Your task to perform on an android device: install app "TextNow: Call + Text Unlimited" Image 0: 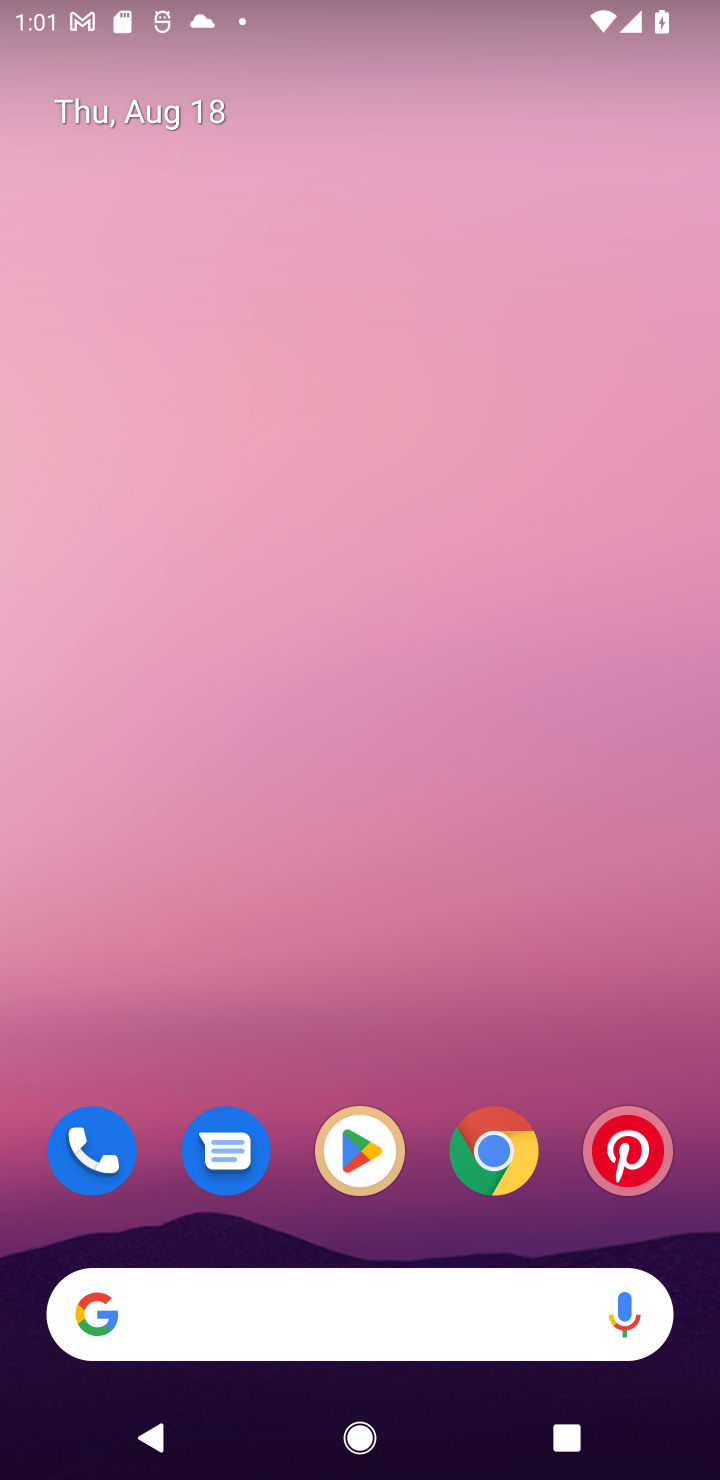
Step 0: click (351, 1147)
Your task to perform on an android device: install app "TextNow: Call + Text Unlimited" Image 1: 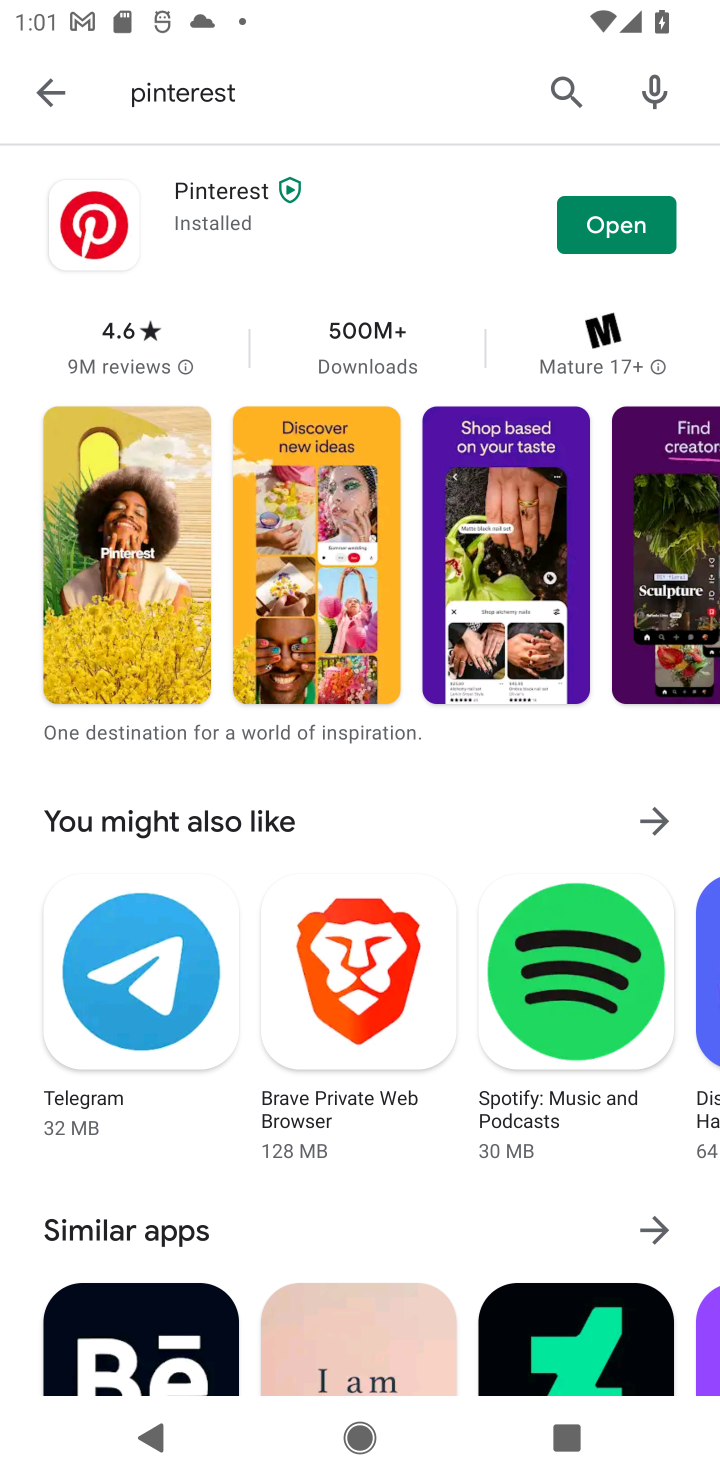
Step 1: click (48, 89)
Your task to perform on an android device: install app "TextNow: Call + Text Unlimited" Image 2: 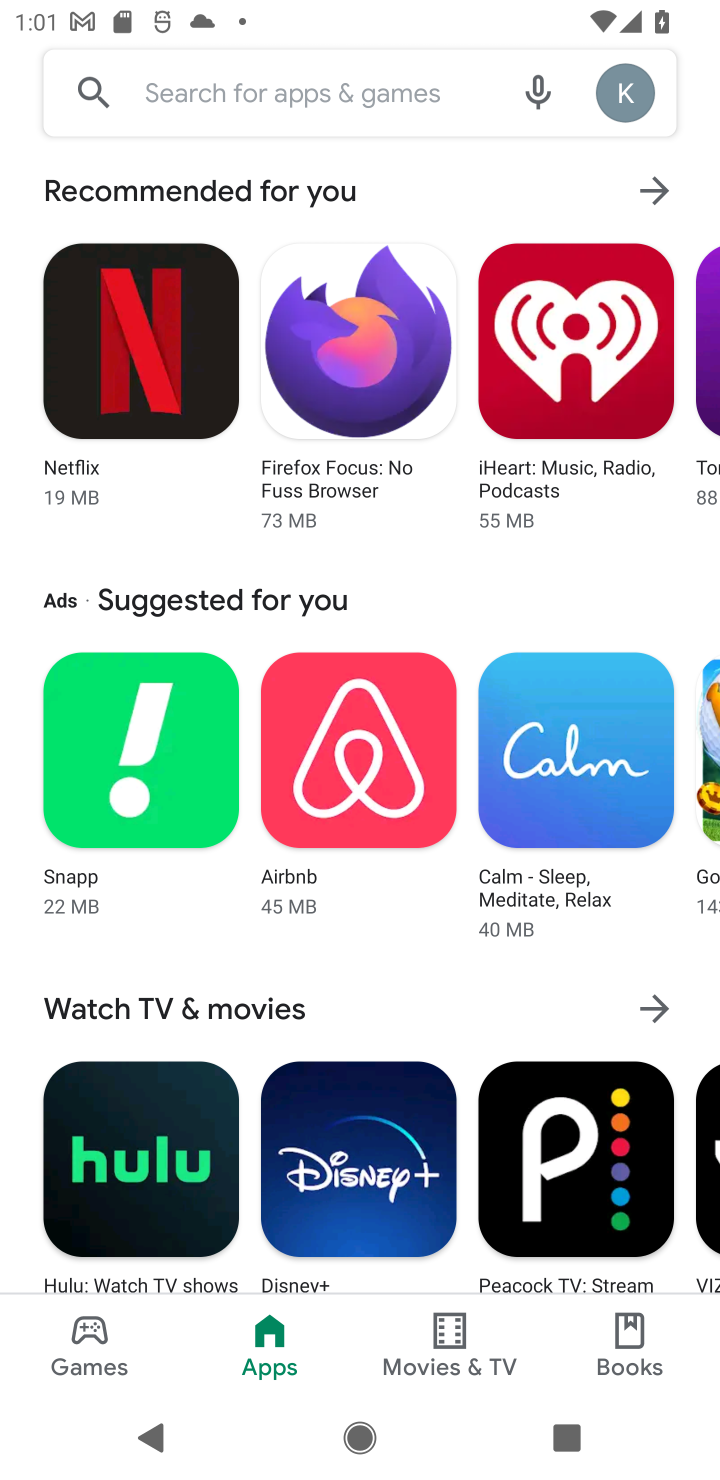
Step 2: click (240, 81)
Your task to perform on an android device: install app "TextNow: Call + Text Unlimited" Image 3: 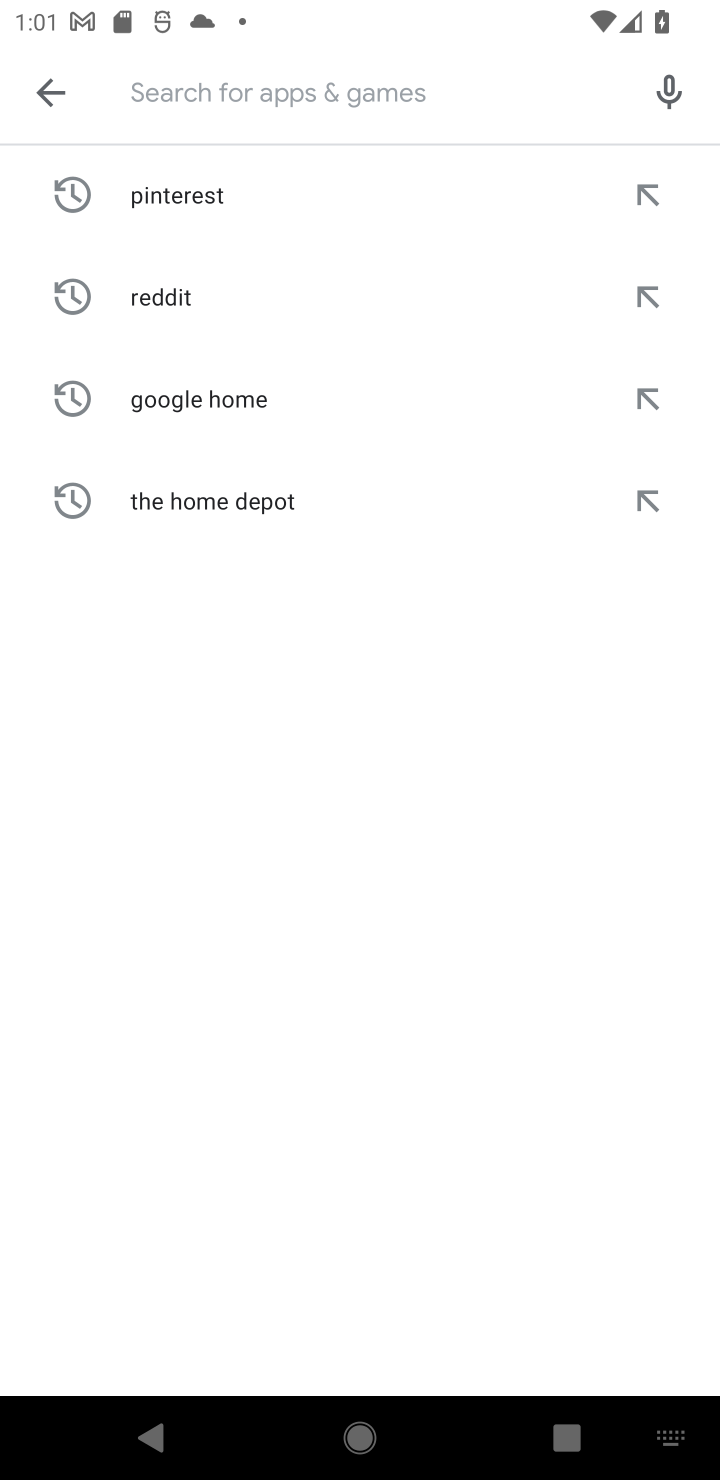
Step 3: type "TextNow: Call + Text Unlimited"
Your task to perform on an android device: install app "TextNow: Call + Text Unlimited" Image 4: 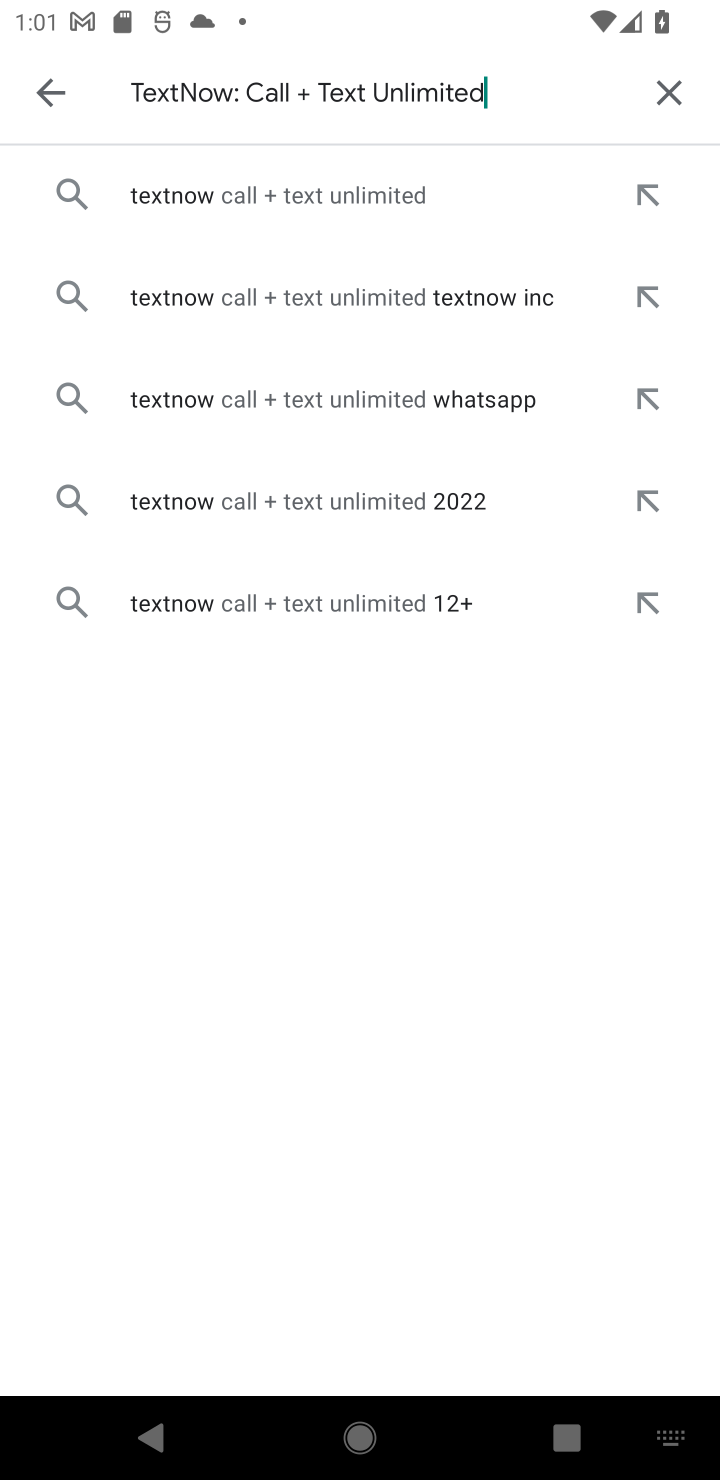
Step 4: click (205, 194)
Your task to perform on an android device: install app "TextNow: Call + Text Unlimited" Image 5: 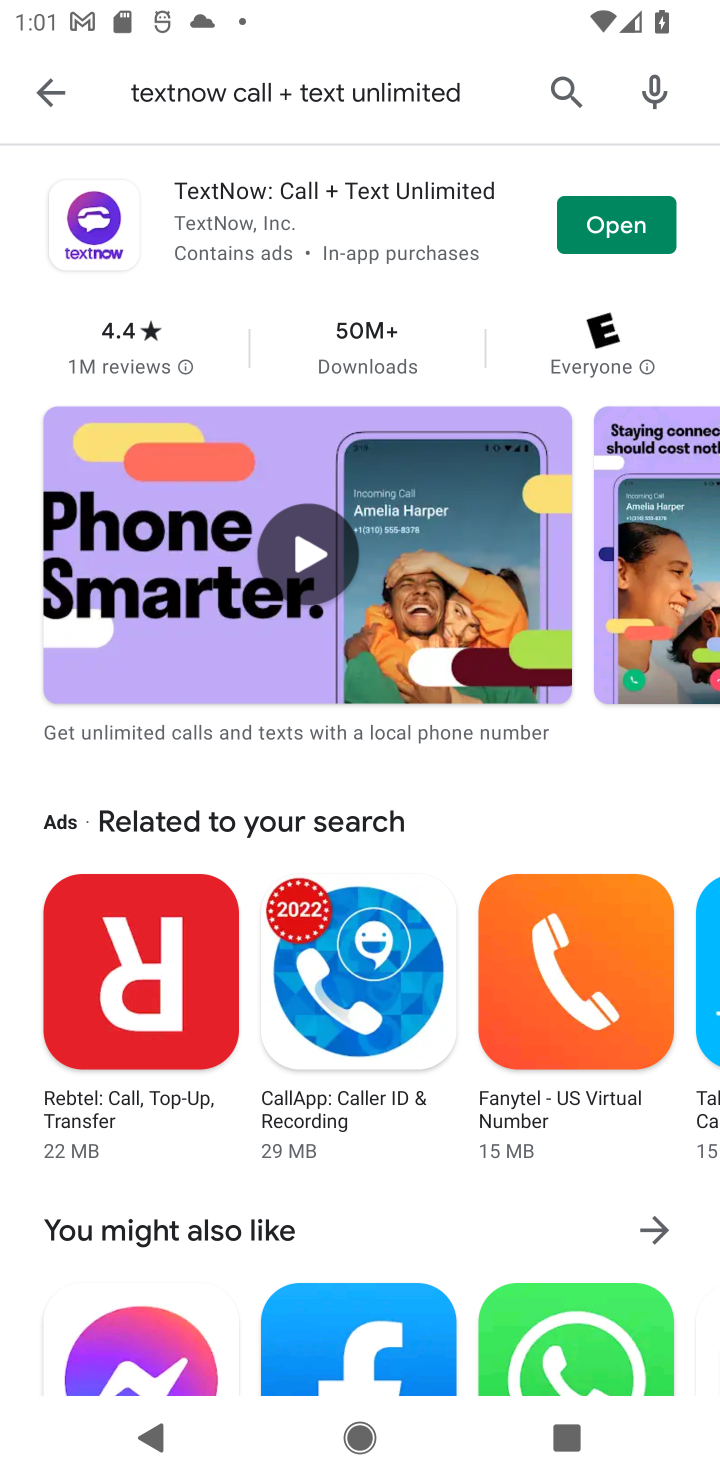
Step 5: click (611, 214)
Your task to perform on an android device: install app "TextNow: Call + Text Unlimited" Image 6: 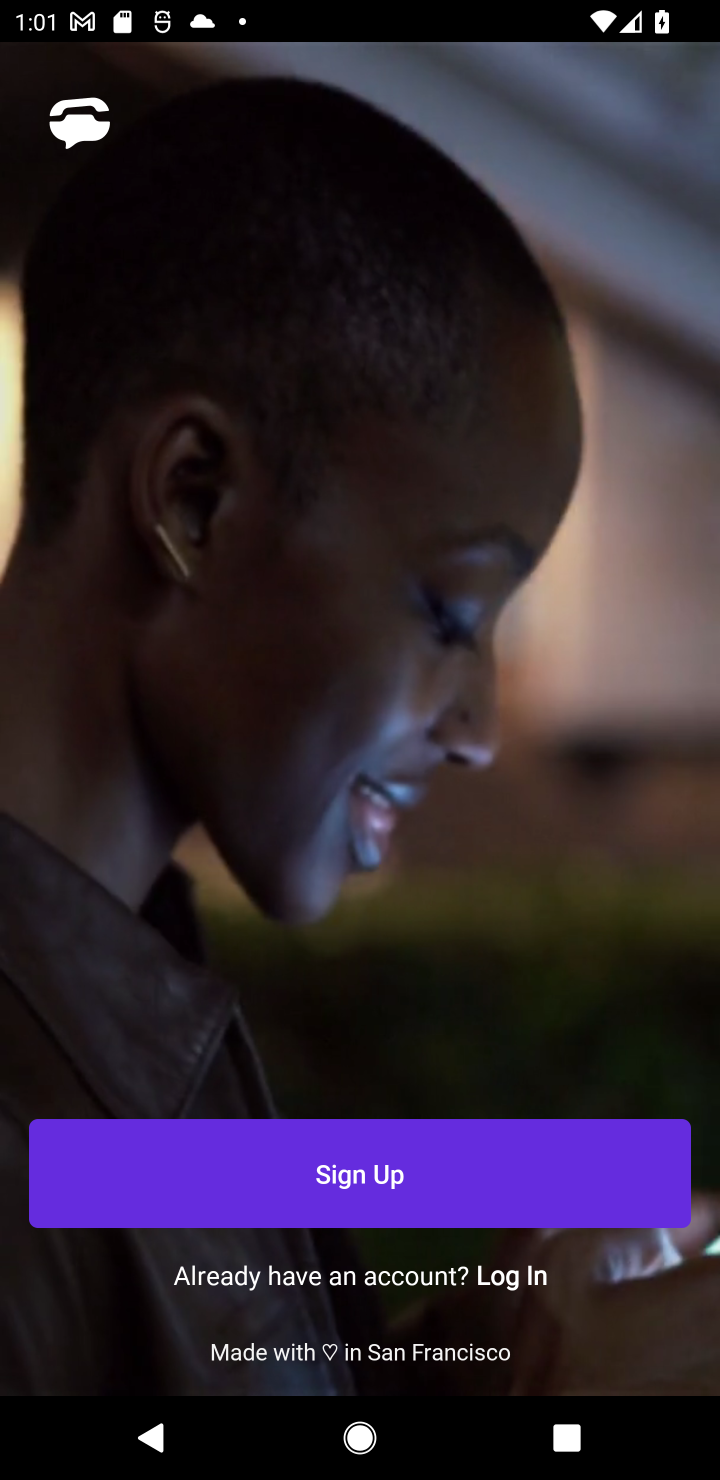
Step 6: task complete